Your task to perform on an android device: add a label to a message in the gmail app Image 0: 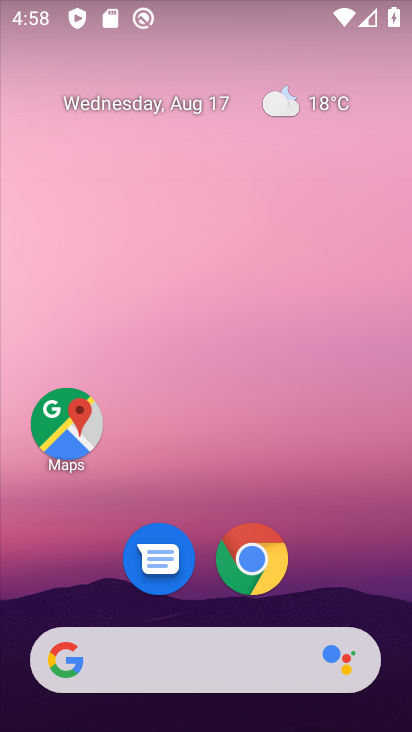
Step 0: drag from (203, 630) to (215, 166)
Your task to perform on an android device: add a label to a message in the gmail app Image 1: 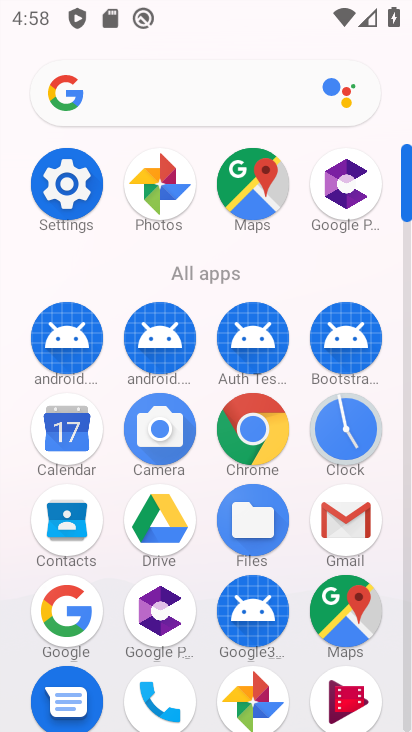
Step 1: click (344, 528)
Your task to perform on an android device: add a label to a message in the gmail app Image 2: 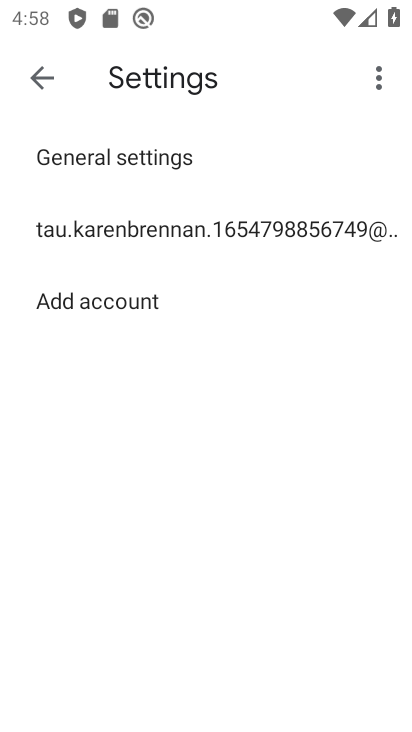
Step 2: click (67, 91)
Your task to perform on an android device: add a label to a message in the gmail app Image 3: 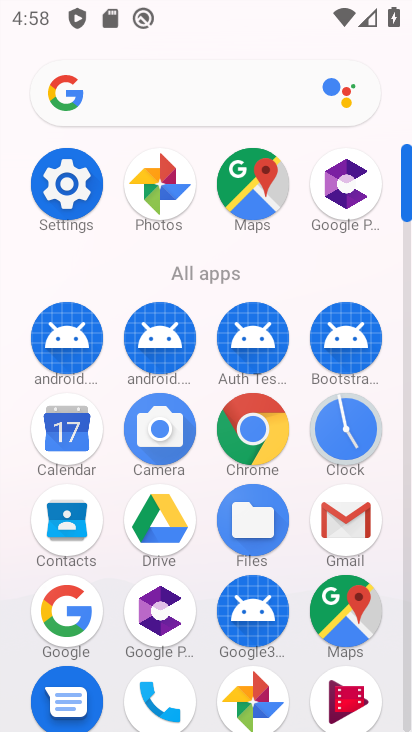
Step 3: click (334, 529)
Your task to perform on an android device: add a label to a message in the gmail app Image 4: 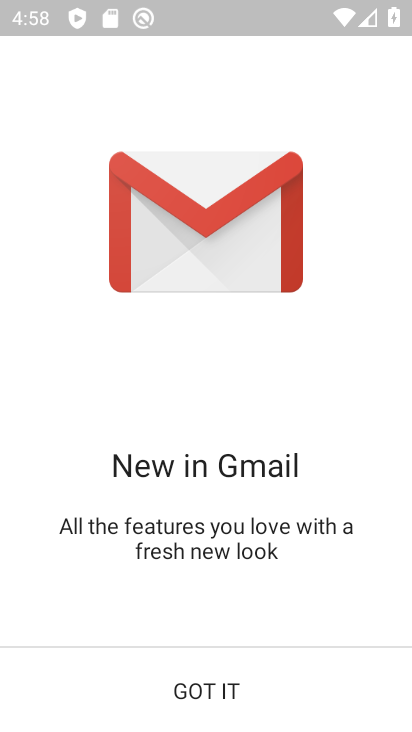
Step 4: click (220, 658)
Your task to perform on an android device: add a label to a message in the gmail app Image 5: 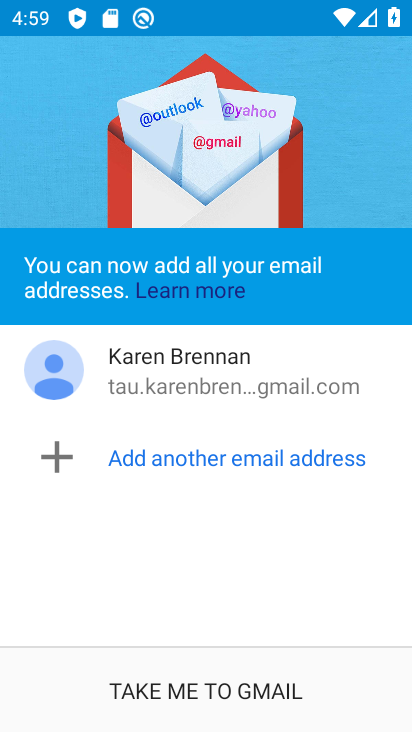
Step 5: click (220, 658)
Your task to perform on an android device: add a label to a message in the gmail app Image 6: 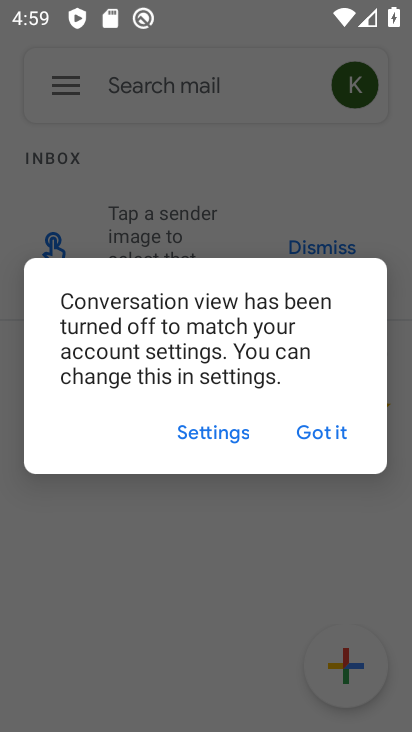
Step 6: click (312, 429)
Your task to perform on an android device: add a label to a message in the gmail app Image 7: 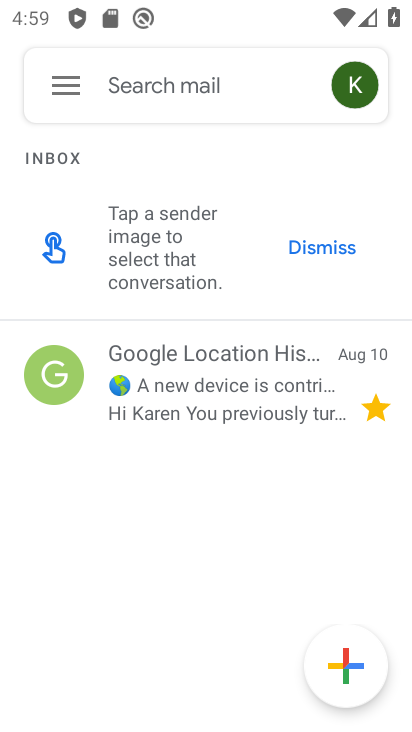
Step 7: click (68, 387)
Your task to perform on an android device: add a label to a message in the gmail app Image 8: 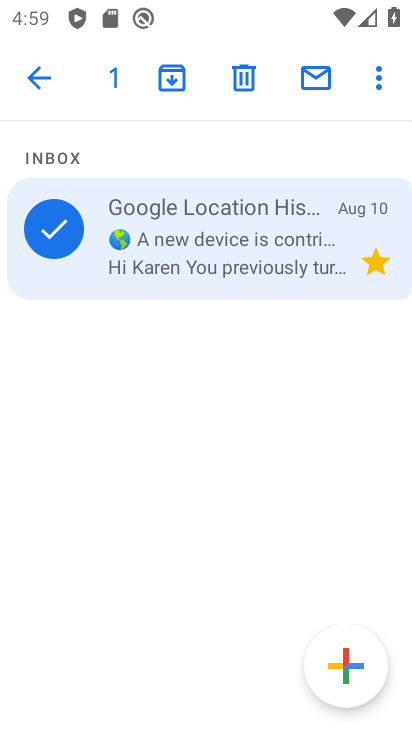
Step 8: click (380, 75)
Your task to perform on an android device: add a label to a message in the gmail app Image 9: 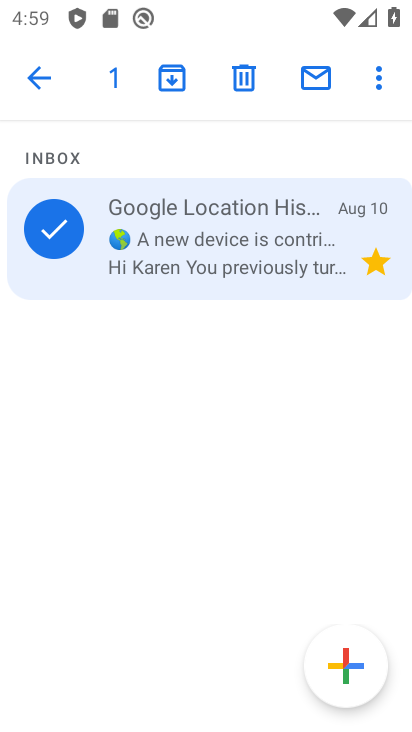
Step 9: click (378, 76)
Your task to perform on an android device: add a label to a message in the gmail app Image 10: 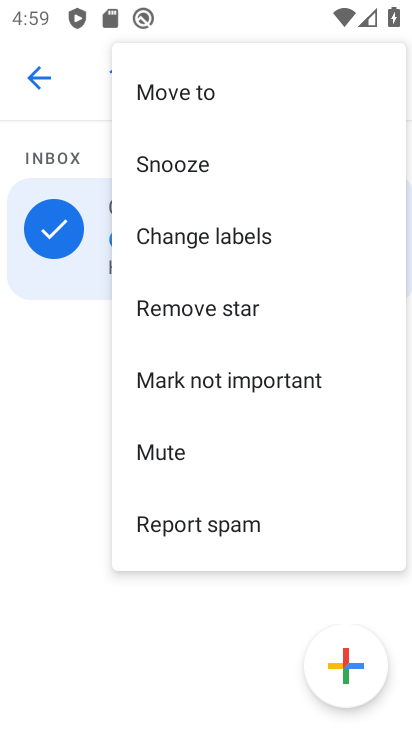
Step 10: click (204, 233)
Your task to perform on an android device: add a label to a message in the gmail app Image 11: 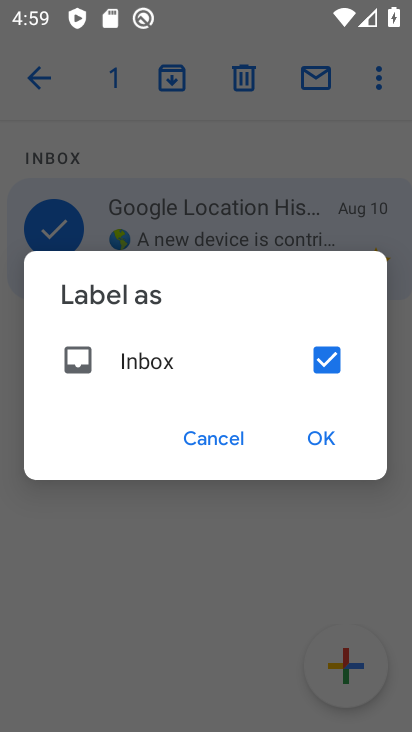
Step 11: click (330, 430)
Your task to perform on an android device: add a label to a message in the gmail app Image 12: 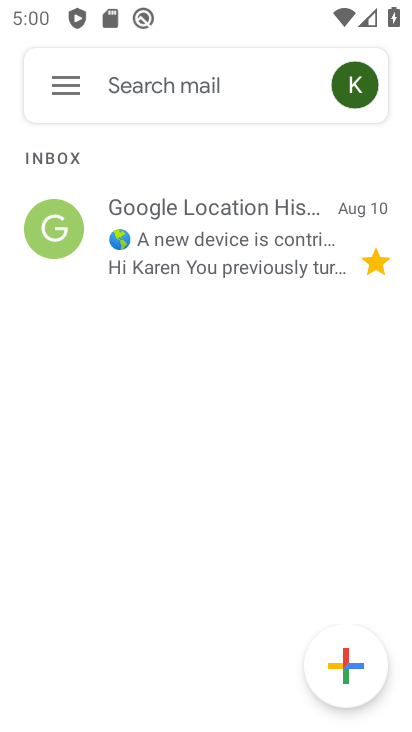
Step 12: task complete